Your task to perform on an android device: Open display settings Image 0: 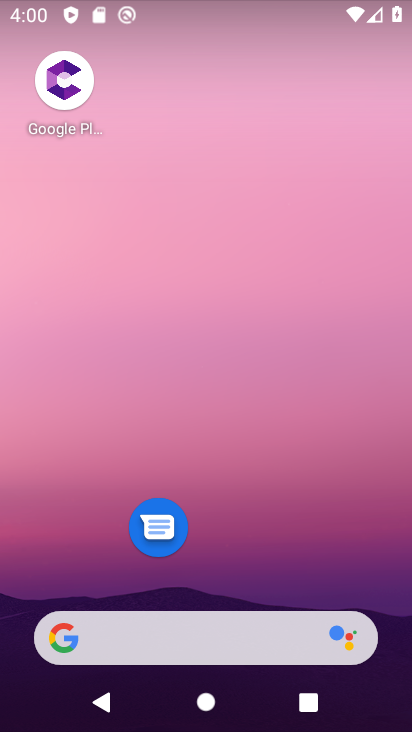
Step 0: drag from (233, 603) to (185, 21)
Your task to perform on an android device: Open display settings Image 1: 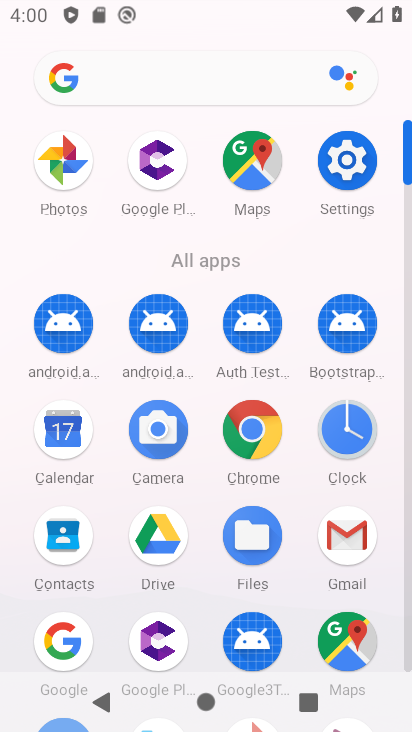
Step 1: click (343, 168)
Your task to perform on an android device: Open display settings Image 2: 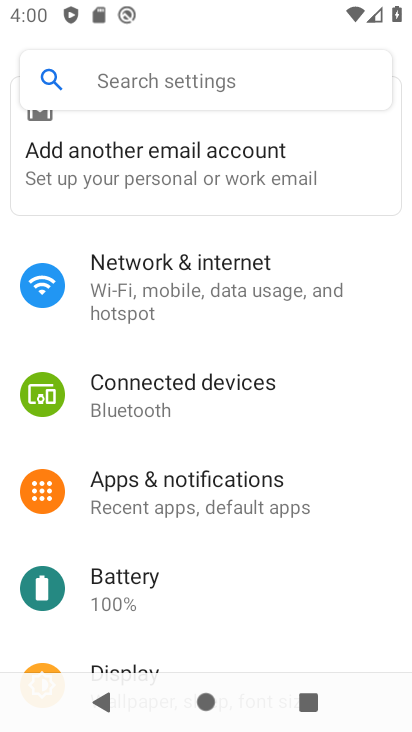
Step 2: drag from (136, 630) to (30, 44)
Your task to perform on an android device: Open display settings Image 3: 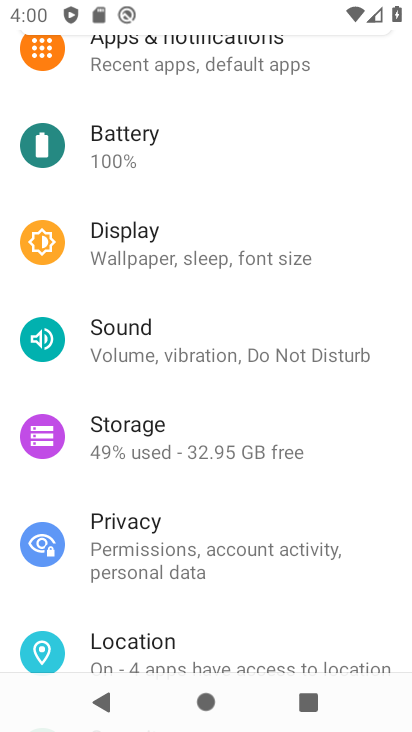
Step 3: click (132, 204)
Your task to perform on an android device: Open display settings Image 4: 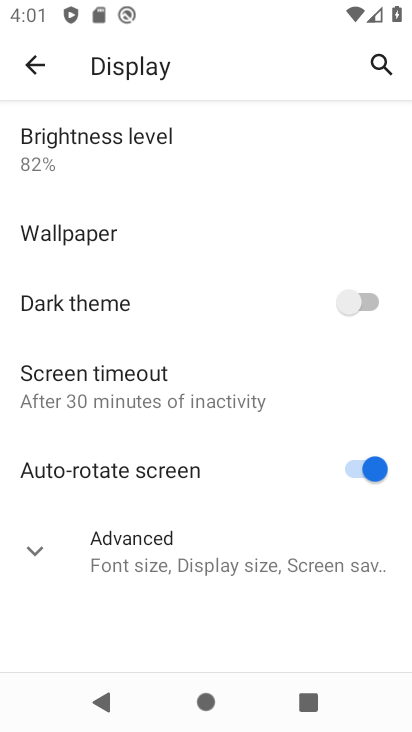
Step 4: task complete